Your task to perform on an android device: Add "sony triple a" to the cart on amazon Image 0: 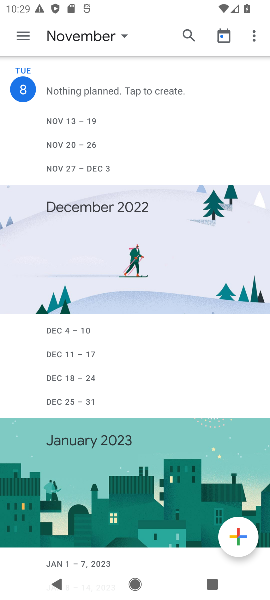
Step 0: press home button
Your task to perform on an android device: Add "sony triple a" to the cart on amazon Image 1: 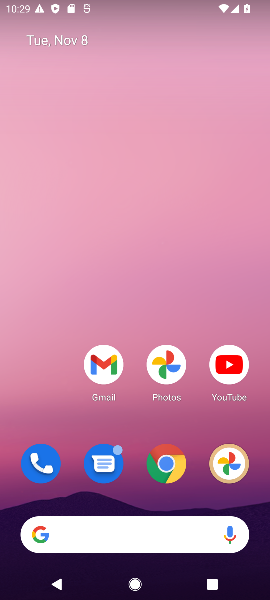
Step 1: click (171, 468)
Your task to perform on an android device: Add "sony triple a" to the cart on amazon Image 2: 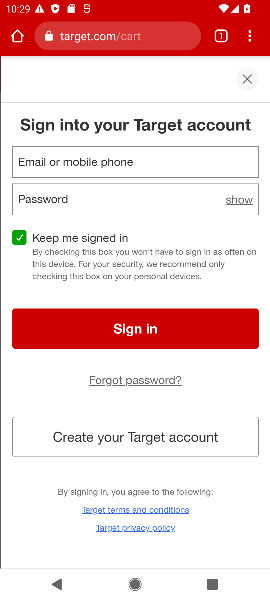
Step 2: click (167, 36)
Your task to perform on an android device: Add "sony triple a" to the cart on amazon Image 3: 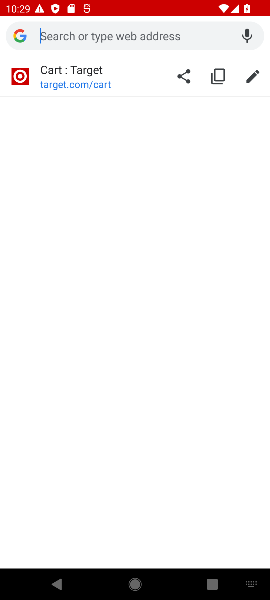
Step 3: type "amazon"
Your task to perform on an android device: Add "sony triple a" to the cart on amazon Image 4: 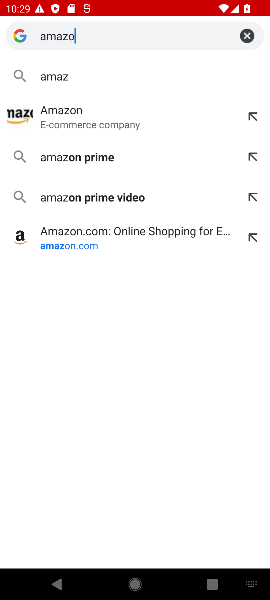
Step 4: press enter
Your task to perform on an android device: Add "sony triple a" to the cart on amazon Image 5: 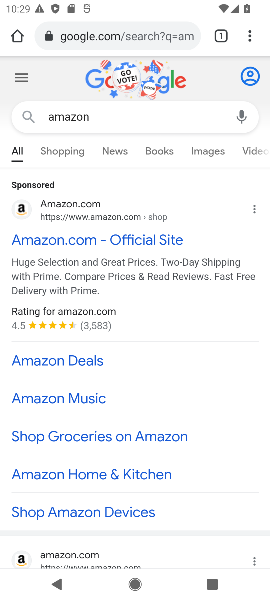
Step 5: click (83, 206)
Your task to perform on an android device: Add "sony triple a" to the cart on amazon Image 6: 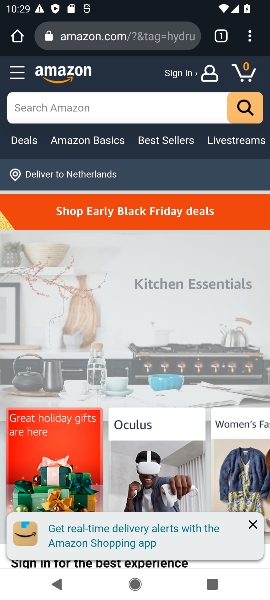
Step 6: click (132, 110)
Your task to perform on an android device: Add "sony triple a" to the cart on amazon Image 7: 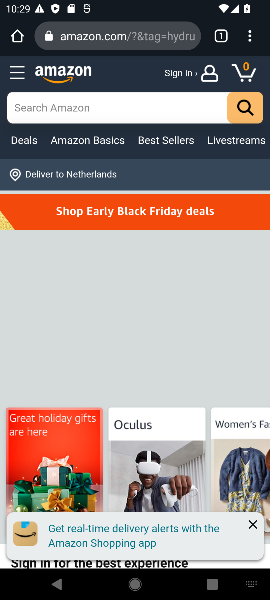
Step 7: type "sony triple a"
Your task to perform on an android device: Add "sony triple a" to the cart on amazon Image 8: 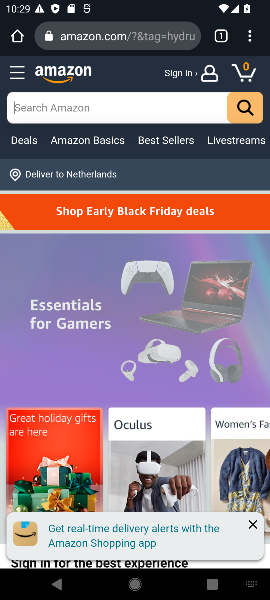
Step 8: press enter
Your task to perform on an android device: Add "sony triple a" to the cart on amazon Image 9: 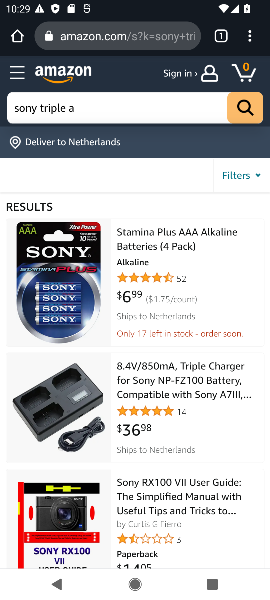
Step 9: drag from (77, 513) to (64, 347)
Your task to perform on an android device: Add "sony triple a" to the cart on amazon Image 10: 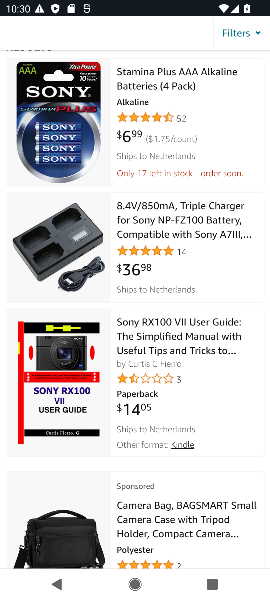
Step 10: click (48, 121)
Your task to perform on an android device: Add "sony triple a" to the cart on amazon Image 11: 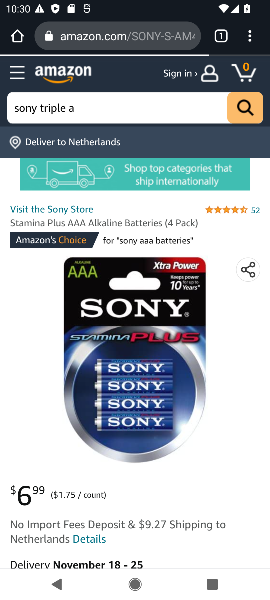
Step 11: drag from (212, 438) to (228, 232)
Your task to perform on an android device: Add "sony triple a" to the cart on amazon Image 12: 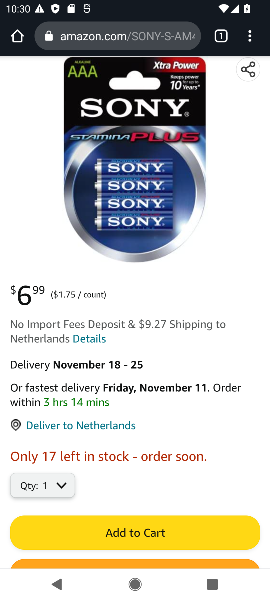
Step 12: click (178, 530)
Your task to perform on an android device: Add "sony triple a" to the cart on amazon Image 13: 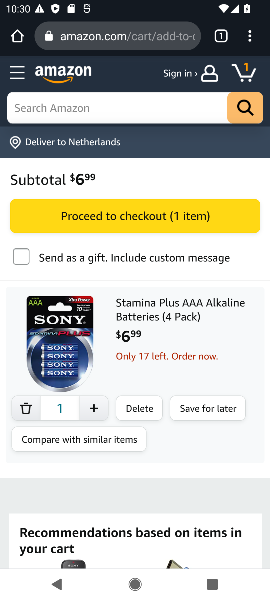
Step 13: task complete